Your task to perform on an android device: Open the stopwatch Image 0: 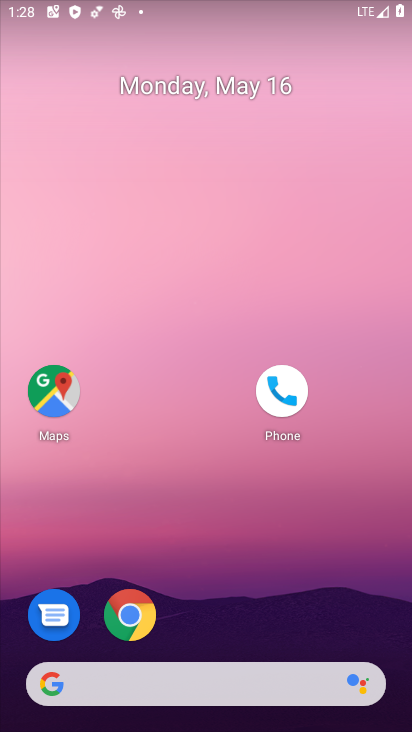
Step 0: drag from (317, 680) to (338, 137)
Your task to perform on an android device: Open the stopwatch Image 1: 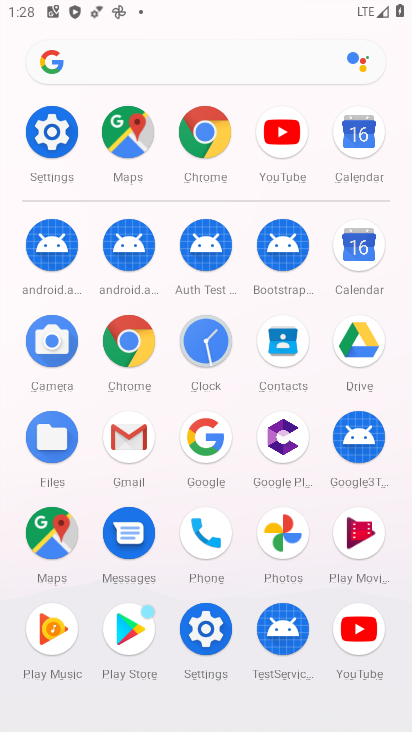
Step 1: click (203, 349)
Your task to perform on an android device: Open the stopwatch Image 2: 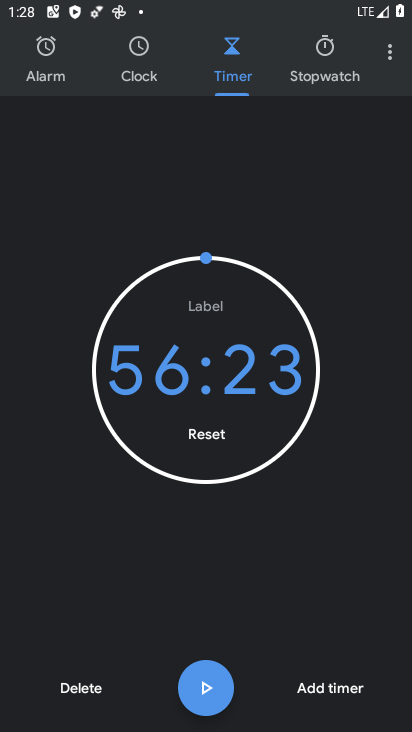
Step 2: click (303, 54)
Your task to perform on an android device: Open the stopwatch Image 3: 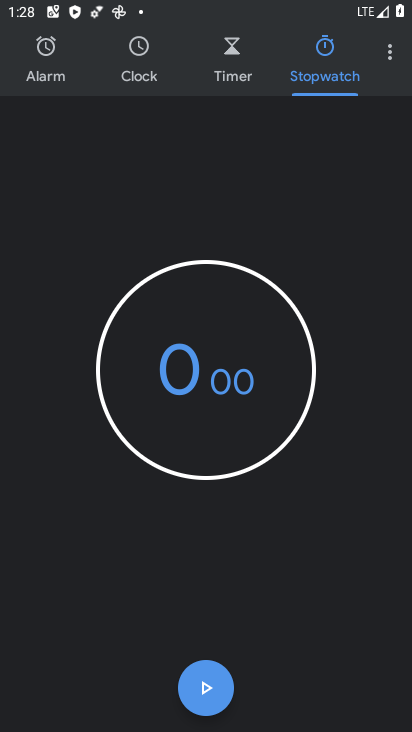
Step 3: click (197, 683)
Your task to perform on an android device: Open the stopwatch Image 4: 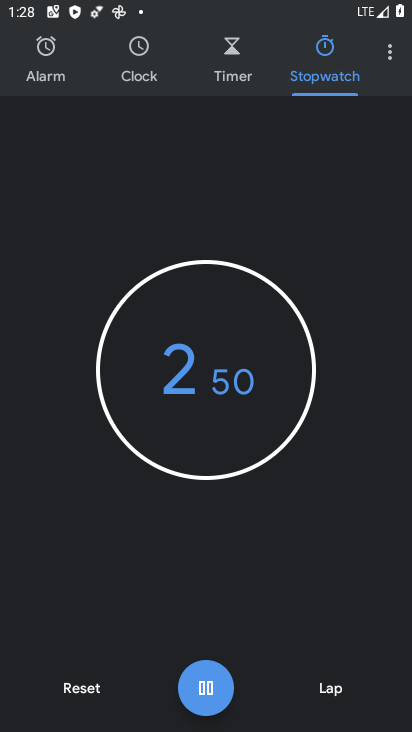
Step 4: task complete